Your task to perform on an android device: open the mobile data screen to see how much data has been used Image 0: 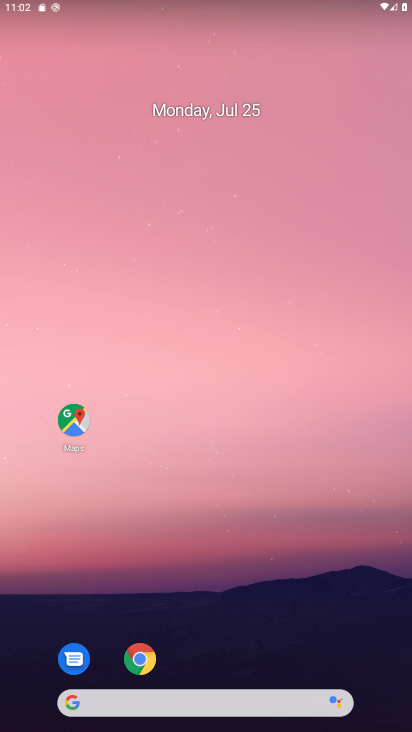
Step 0: drag from (237, 638) to (260, 221)
Your task to perform on an android device: open the mobile data screen to see how much data has been used Image 1: 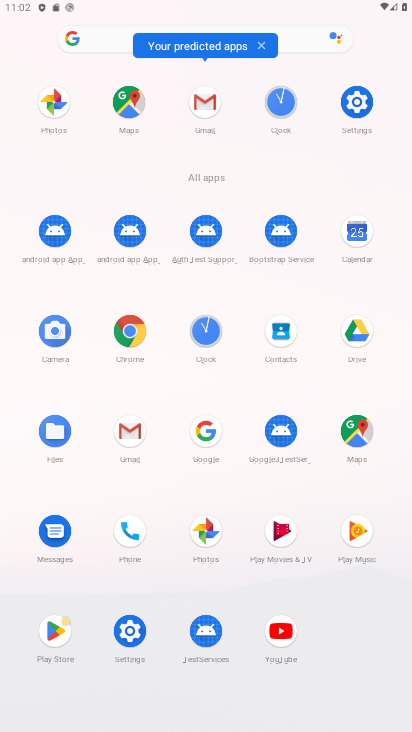
Step 1: click (353, 95)
Your task to perform on an android device: open the mobile data screen to see how much data has been used Image 2: 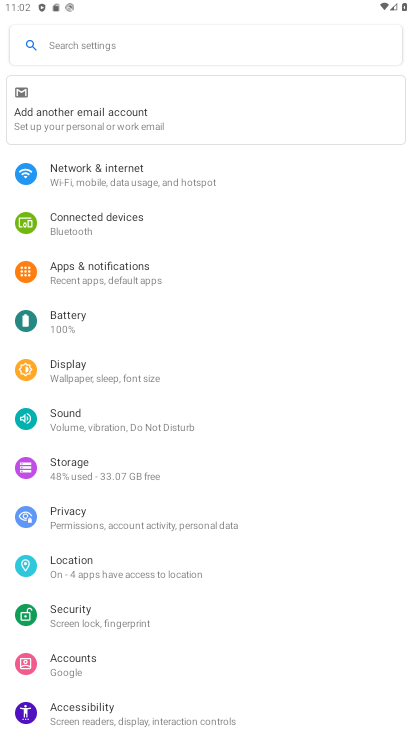
Step 2: click (95, 173)
Your task to perform on an android device: open the mobile data screen to see how much data has been used Image 3: 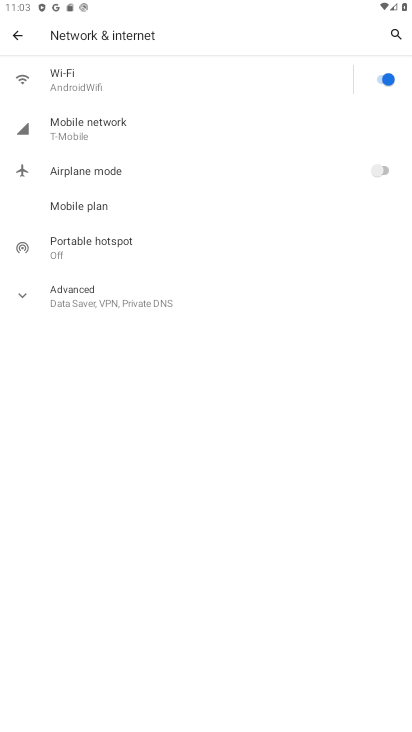
Step 3: click (70, 123)
Your task to perform on an android device: open the mobile data screen to see how much data has been used Image 4: 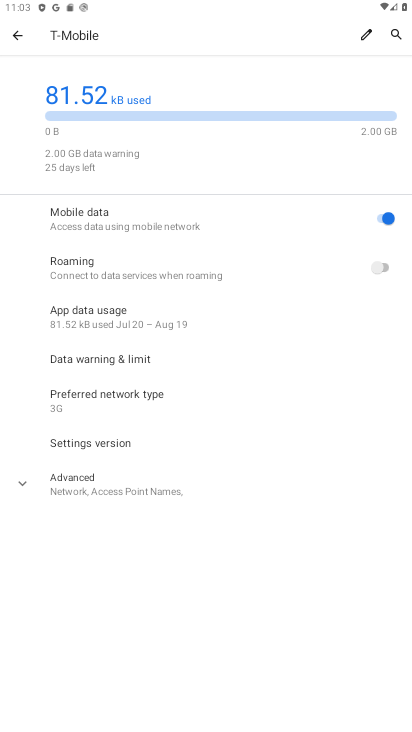
Step 4: task complete